Your task to perform on an android device: Go to Amazon Image 0: 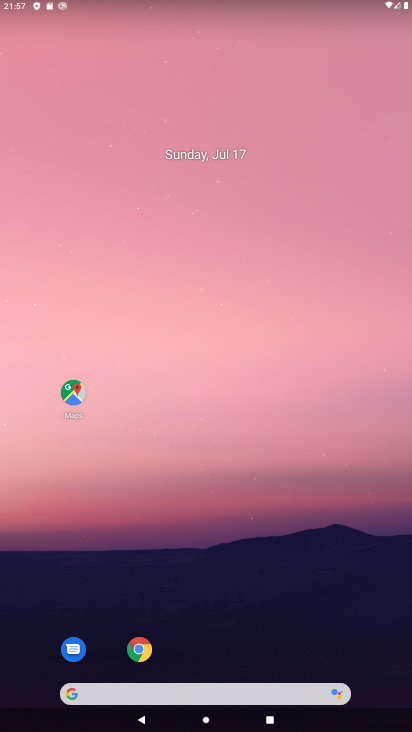
Step 0: click (102, 699)
Your task to perform on an android device: Go to Amazon Image 1: 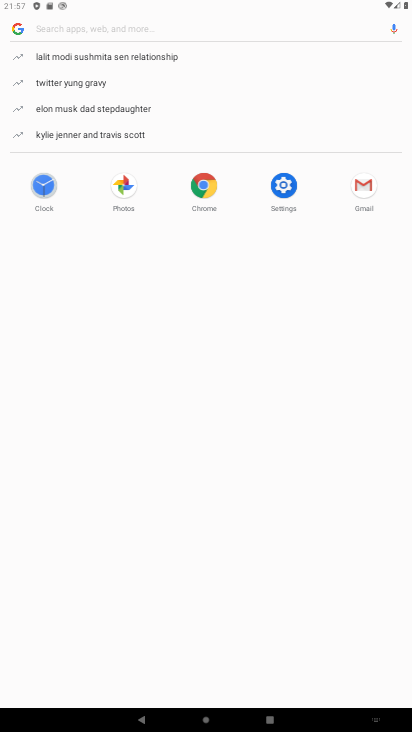
Step 1: type " Amazon"
Your task to perform on an android device: Go to Amazon Image 2: 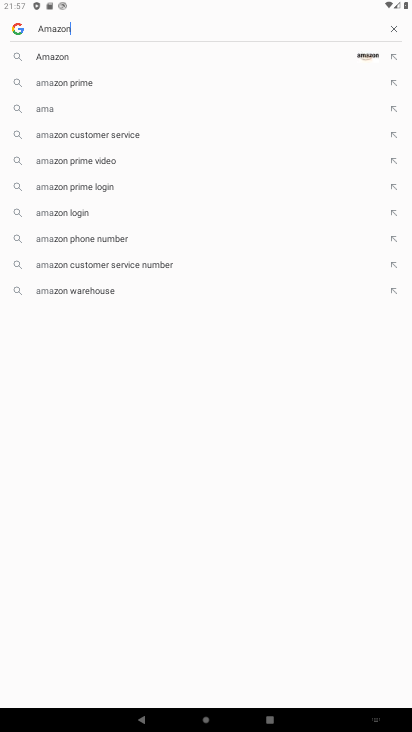
Step 2: type ""
Your task to perform on an android device: Go to Amazon Image 3: 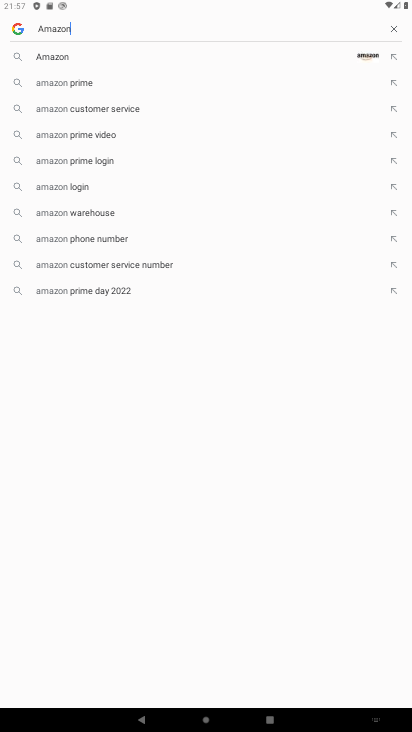
Step 3: click (46, 68)
Your task to perform on an android device: Go to Amazon Image 4: 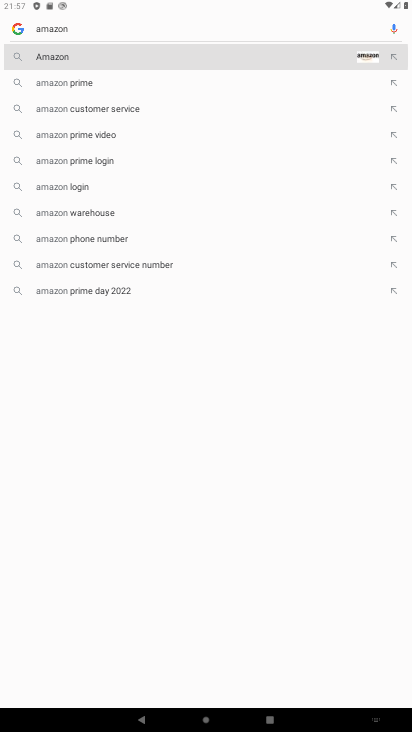
Step 4: click (46, 60)
Your task to perform on an android device: Go to Amazon Image 5: 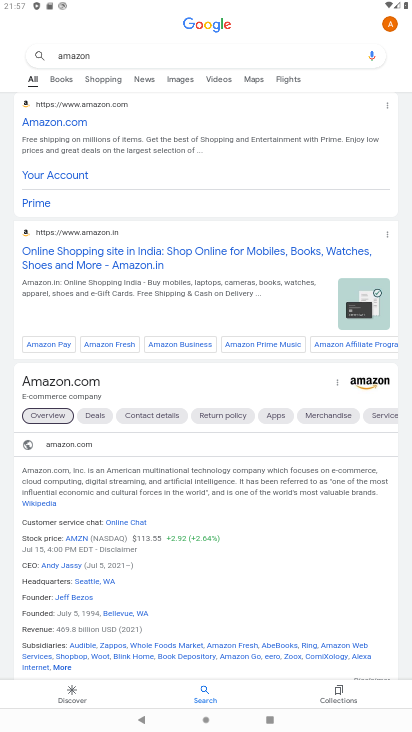
Step 5: task complete